Your task to perform on an android device: Open privacy settings Image 0: 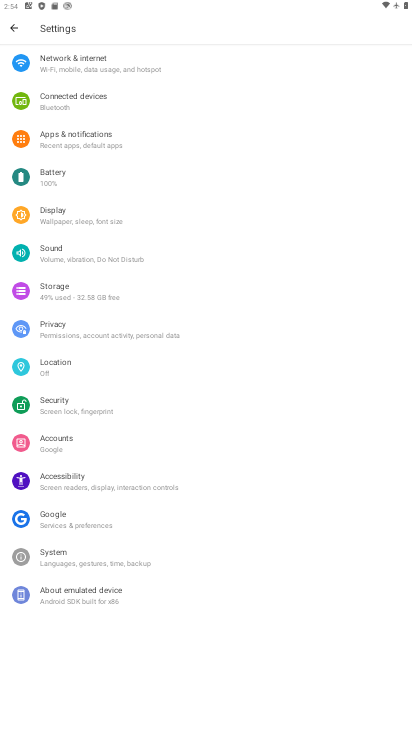
Step 0: click (70, 325)
Your task to perform on an android device: Open privacy settings Image 1: 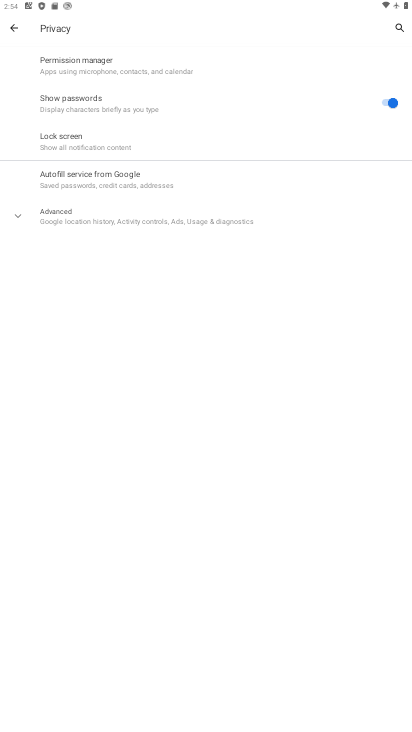
Step 1: task complete